Your task to perform on an android device: Open Android settings Image 0: 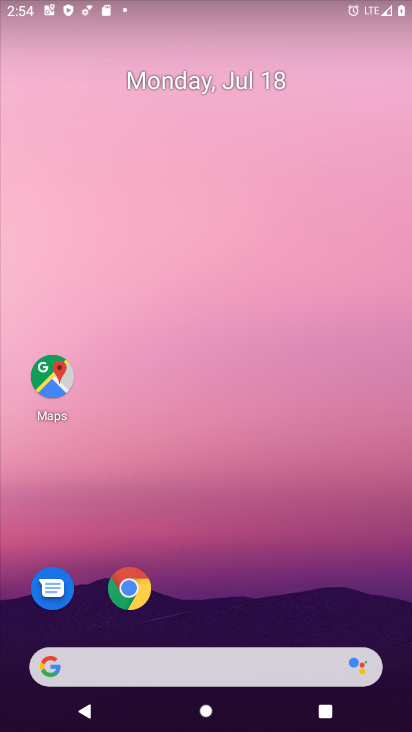
Step 0: drag from (249, 617) to (256, 123)
Your task to perform on an android device: Open Android settings Image 1: 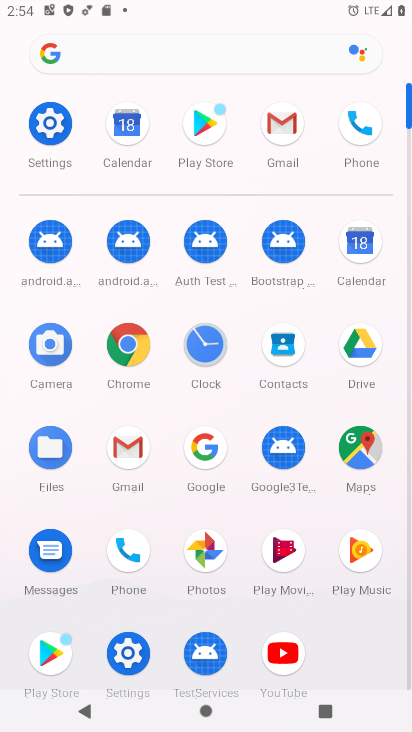
Step 1: click (53, 123)
Your task to perform on an android device: Open Android settings Image 2: 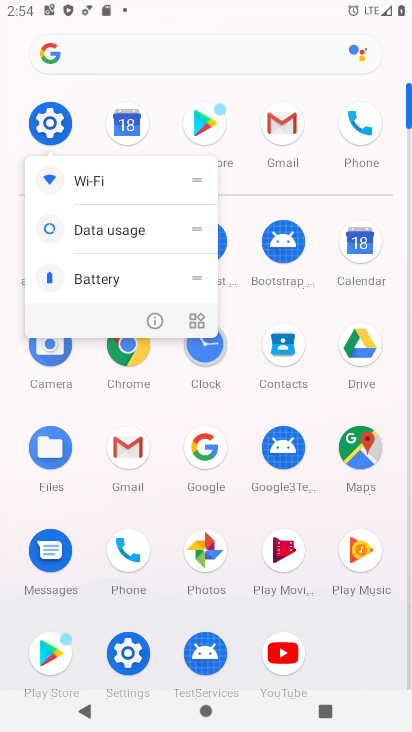
Step 2: click (53, 123)
Your task to perform on an android device: Open Android settings Image 3: 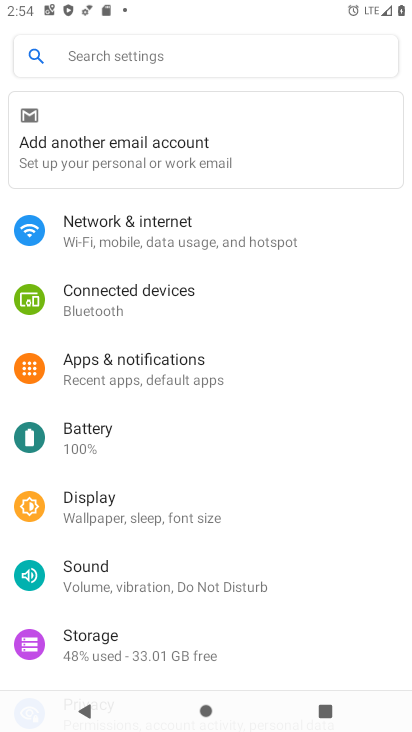
Step 3: drag from (141, 643) to (269, 78)
Your task to perform on an android device: Open Android settings Image 4: 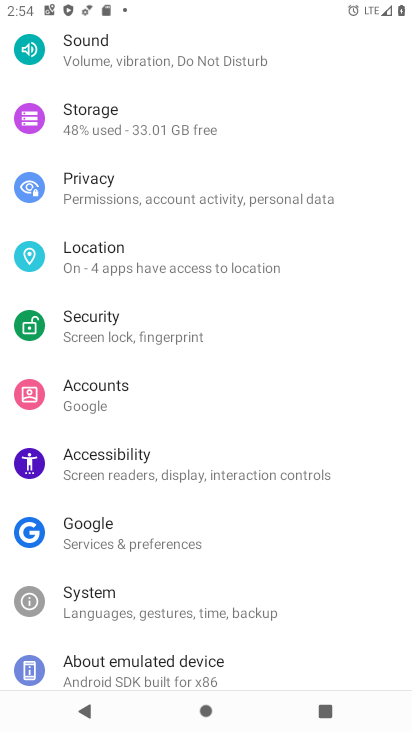
Step 4: click (113, 659)
Your task to perform on an android device: Open Android settings Image 5: 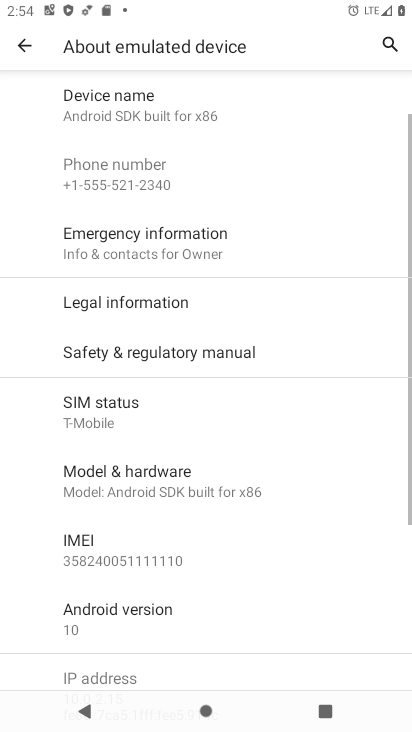
Step 5: click (134, 624)
Your task to perform on an android device: Open Android settings Image 6: 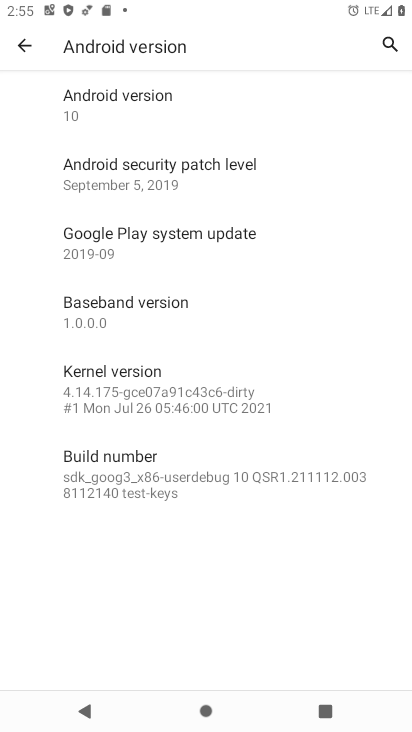
Step 6: task complete